Your task to perform on an android device: Go to battery settings Image 0: 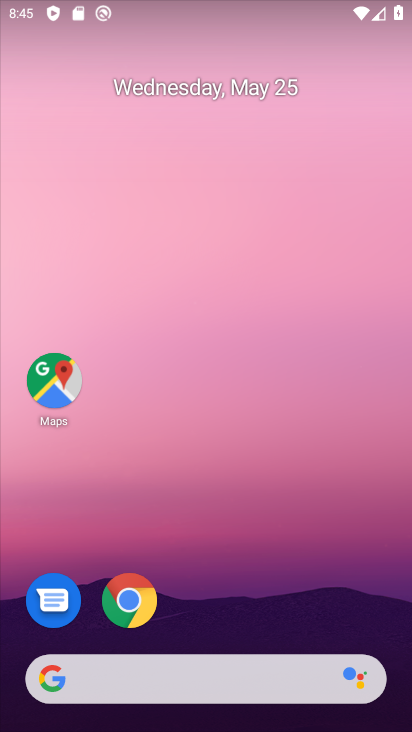
Step 0: drag from (251, 598) to (253, 4)
Your task to perform on an android device: Go to battery settings Image 1: 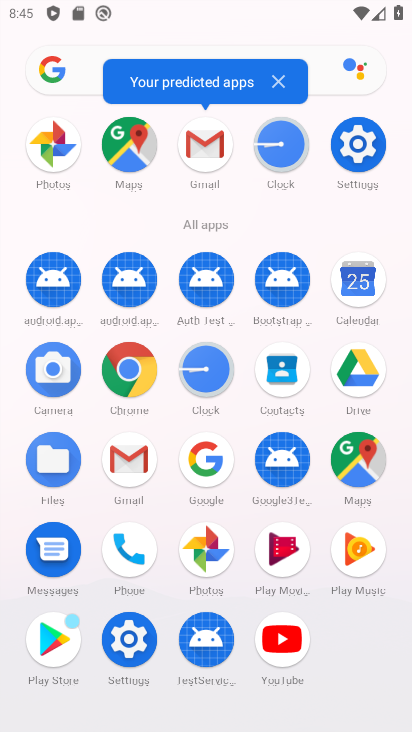
Step 1: click (349, 150)
Your task to perform on an android device: Go to battery settings Image 2: 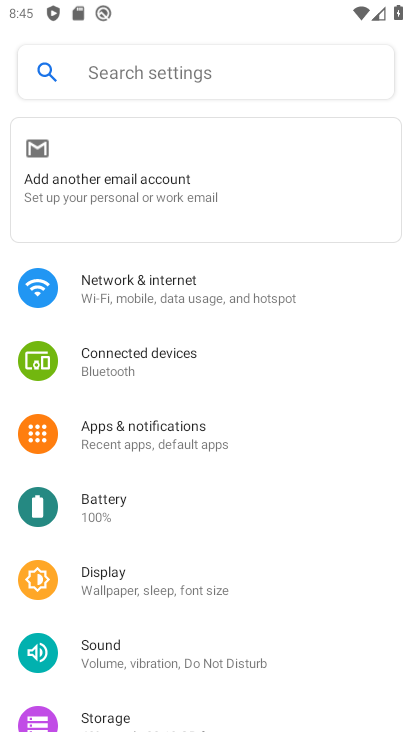
Step 2: click (117, 494)
Your task to perform on an android device: Go to battery settings Image 3: 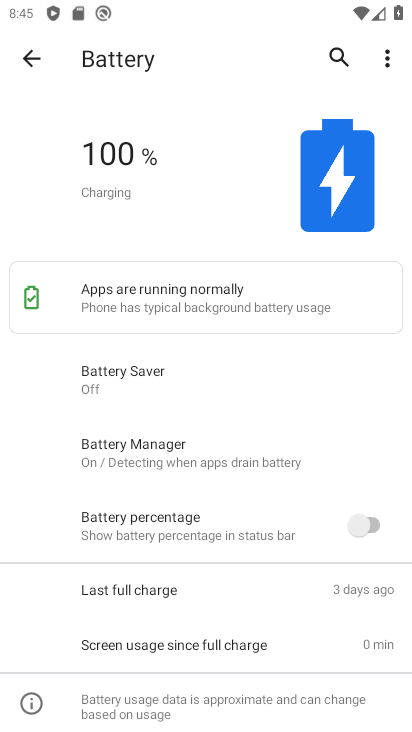
Step 3: task complete